Your task to perform on an android device: turn on the 12-hour format for clock Image 0: 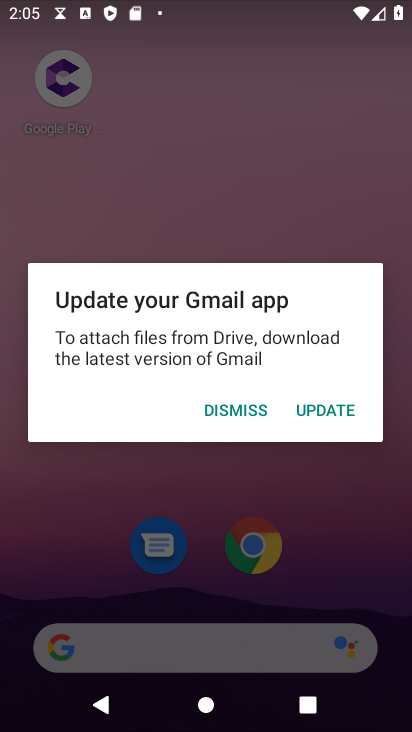
Step 0: click (231, 411)
Your task to perform on an android device: turn on the 12-hour format for clock Image 1: 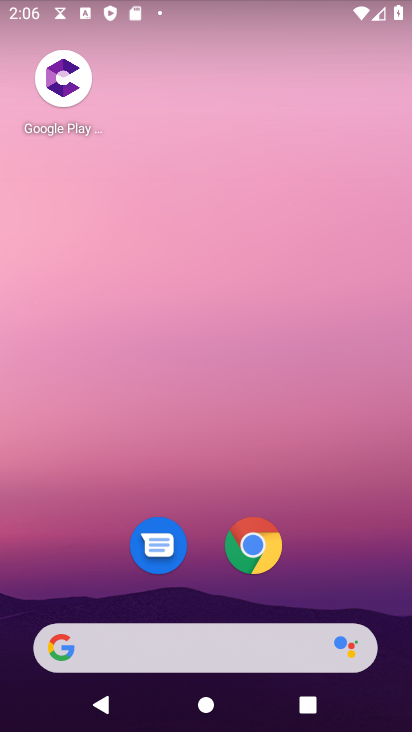
Step 1: drag from (157, 639) to (103, 24)
Your task to perform on an android device: turn on the 12-hour format for clock Image 2: 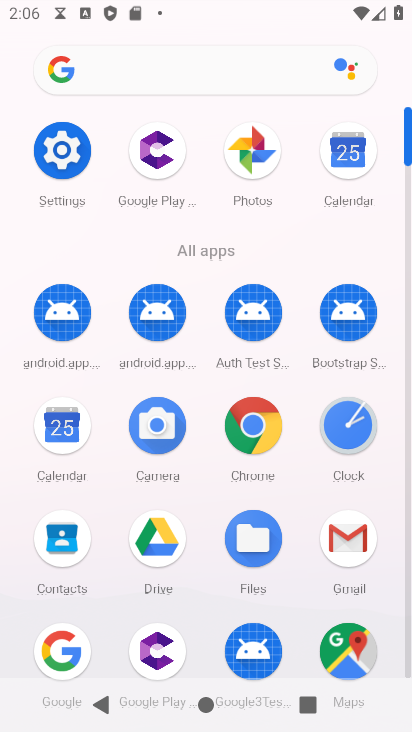
Step 2: click (61, 148)
Your task to perform on an android device: turn on the 12-hour format for clock Image 3: 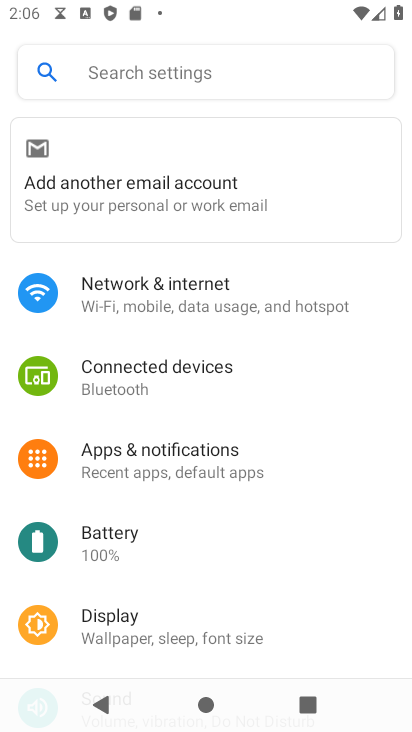
Step 3: drag from (90, 502) to (34, 10)
Your task to perform on an android device: turn on the 12-hour format for clock Image 4: 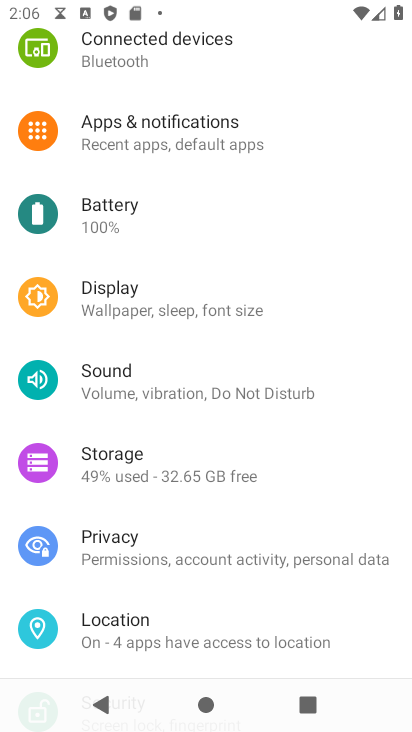
Step 4: drag from (152, 493) to (50, 4)
Your task to perform on an android device: turn on the 12-hour format for clock Image 5: 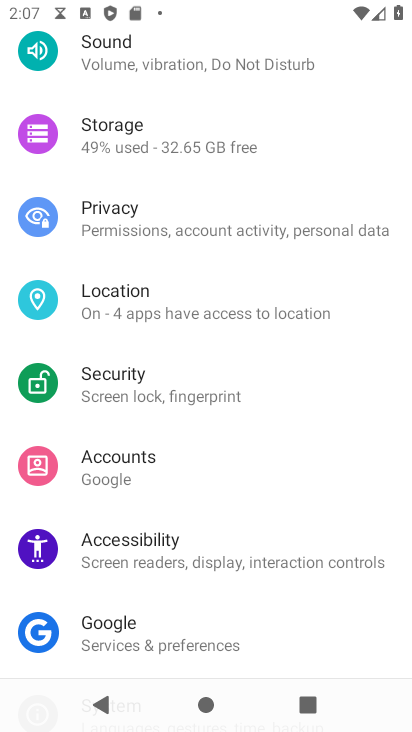
Step 5: drag from (163, 544) to (131, 3)
Your task to perform on an android device: turn on the 12-hour format for clock Image 6: 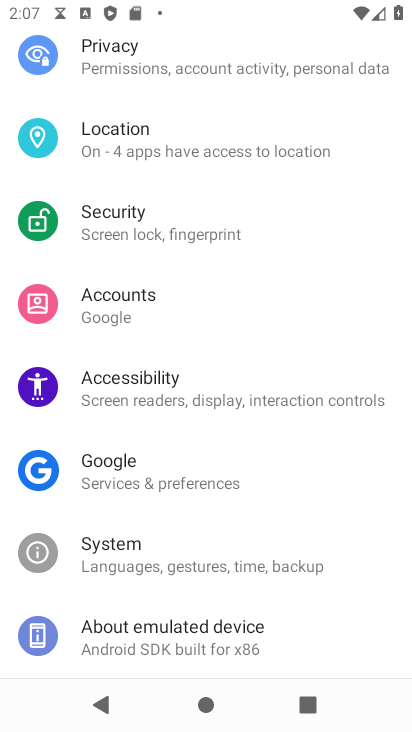
Step 6: click (180, 574)
Your task to perform on an android device: turn on the 12-hour format for clock Image 7: 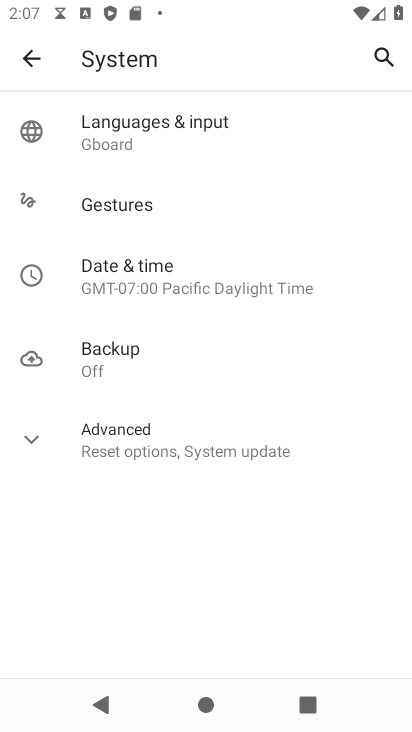
Step 7: click (142, 284)
Your task to perform on an android device: turn on the 12-hour format for clock Image 8: 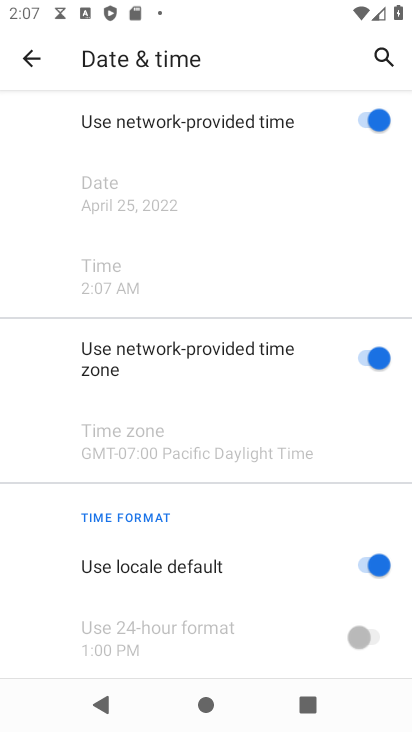
Step 8: task complete